Your task to perform on an android device: Open calendar and show me the second week of next month Image 0: 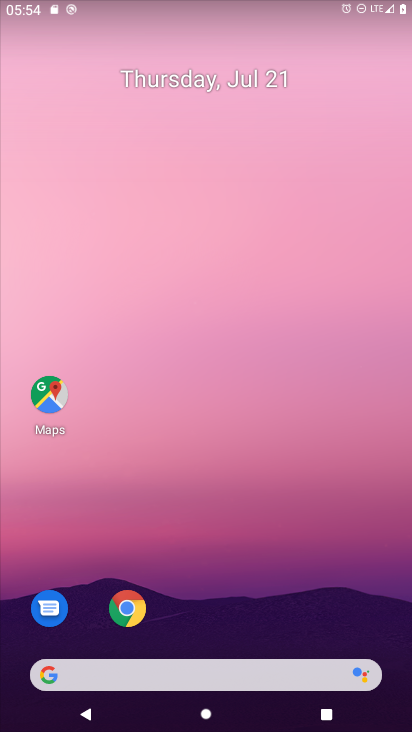
Step 0: drag from (361, 580) to (373, 0)
Your task to perform on an android device: Open calendar and show me the second week of next month Image 1: 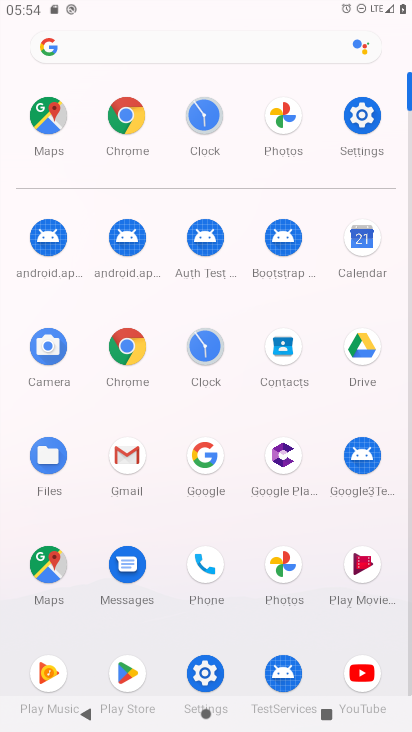
Step 1: click (376, 241)
Your task to perform on an android device: Open calendar and show me the second week of next month Image 2: 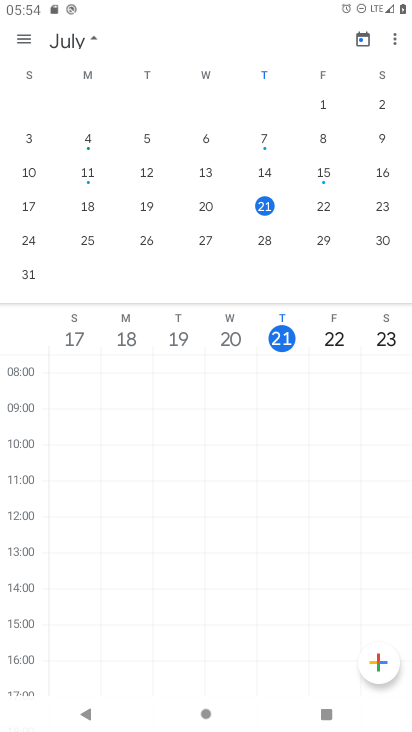
Step 2: drag from (335, 195) to (57, 133)
Your task to perform on an android device: Open calendar and show me the second week of next month Image 3: 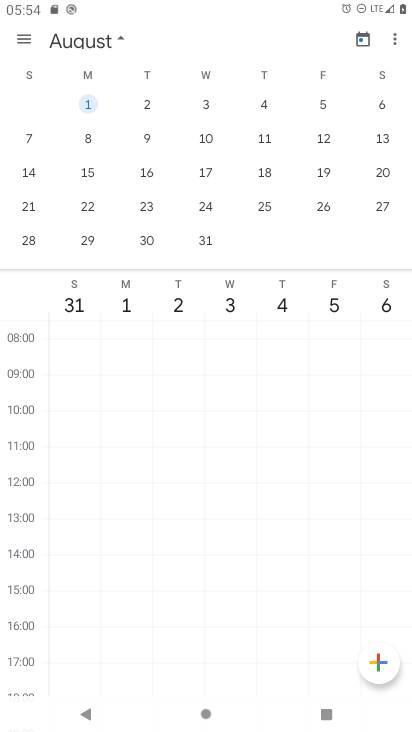
Step 3: click (204, 136)
Your task to perform on an android device: Open calendar and show me the second week of next month Image 4: 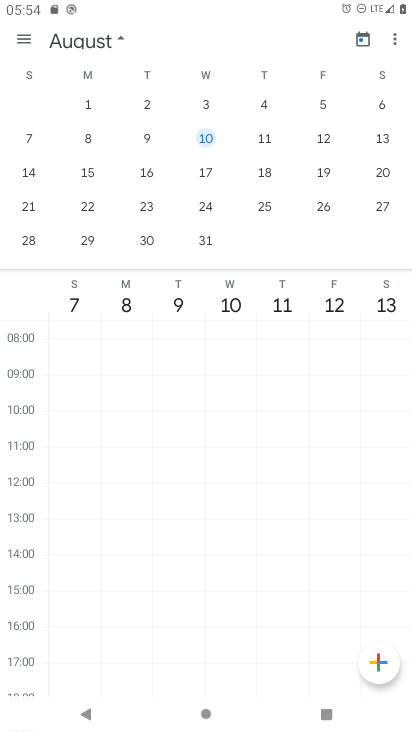
Step 4: task complete